Your task to perform on an android device: allow cookies in the chrome app Image 0: 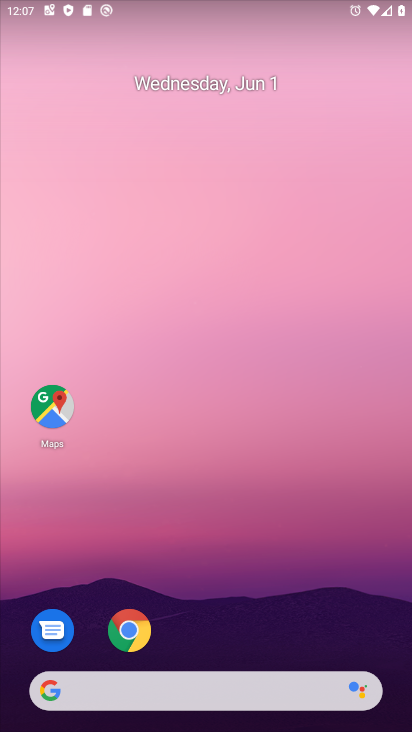
Step 0: click (130, 640)
Your task to perform on an android device: allow cookies in the chrome app Image 1: 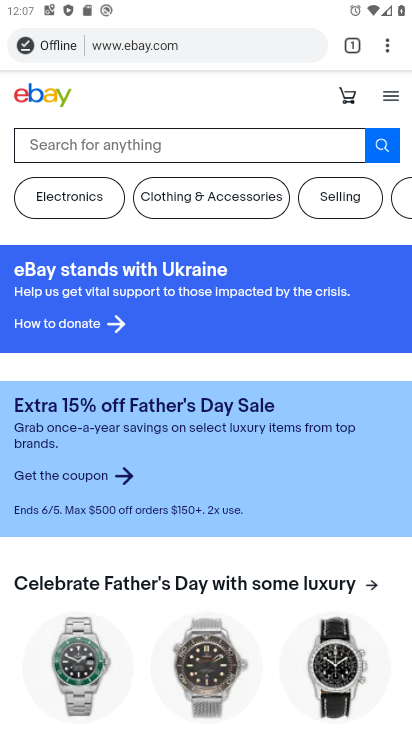
Step 1: click (390, 46)
Your task to perform on an android device: allow cookies in the chrome app Image 2: 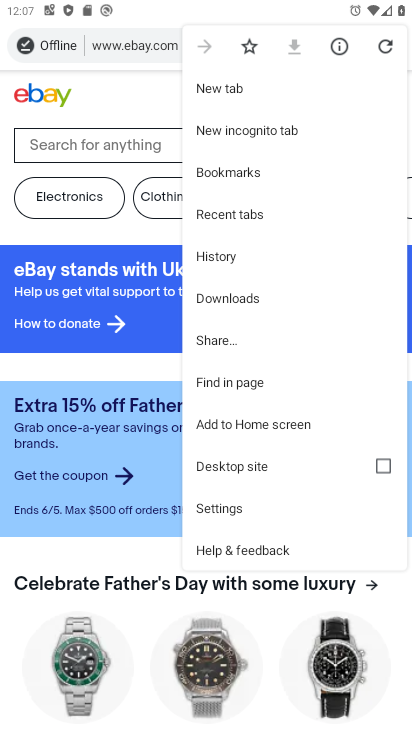
Step 2: click (232, 512)
Your task to perform on an android device: allow cookies in the chrome app Image 3: 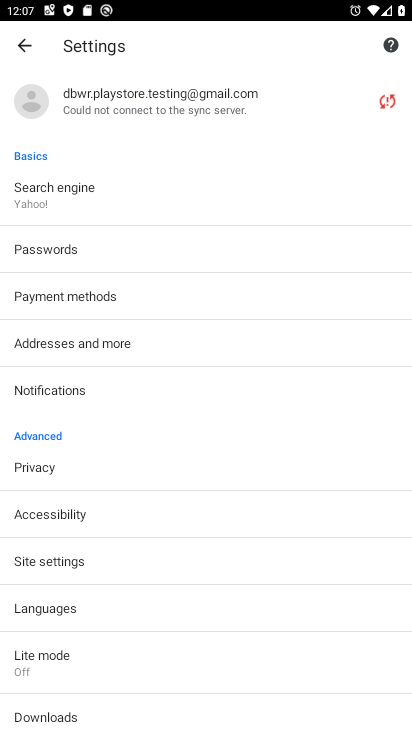
Step 3: click (64, 571)
Your task to perform on an android device: allow cookies in the chrome app Image 4: 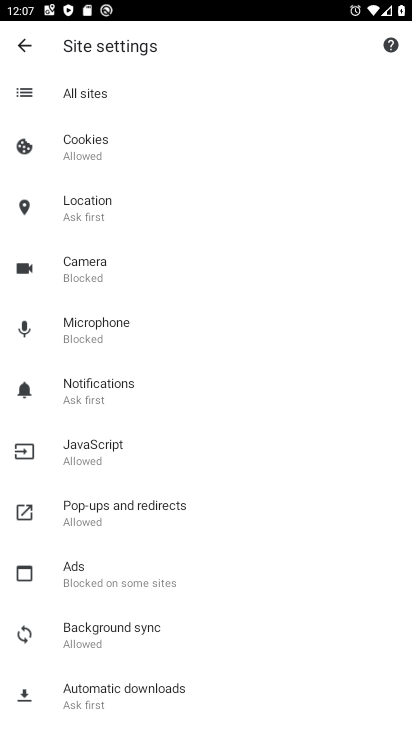
Step 4: click (77, 148)
Your task to perform on an android device: allow cookies in the chrome app Image 5: 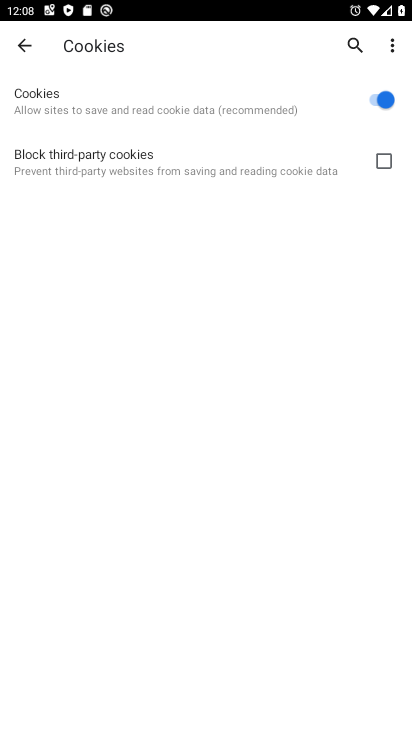
Step 5: task complete